Your task to perform on an android device: check android version Image 0: 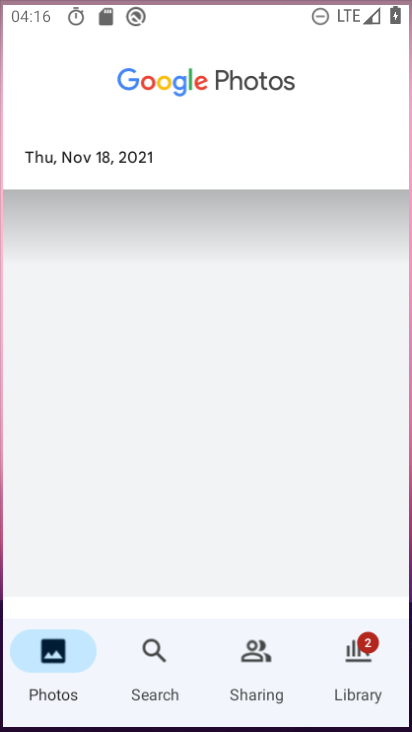
Step 0: drag from (333, 571) to (271, 109)
Your task to perform on an android device: check android version Image 1: 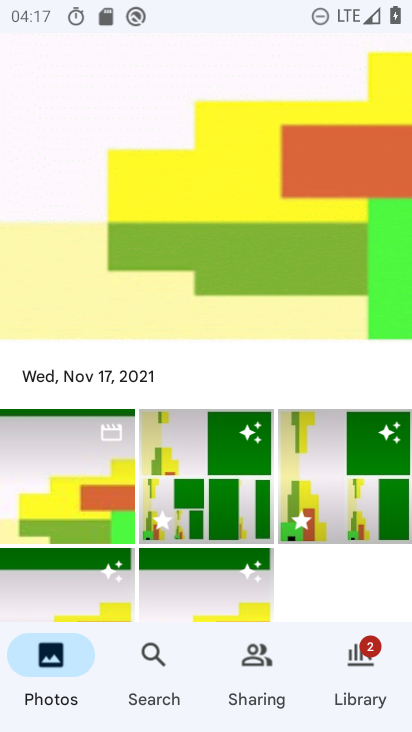
Step 1: press home button
Your task to perform on an android device: check android version Image 2: 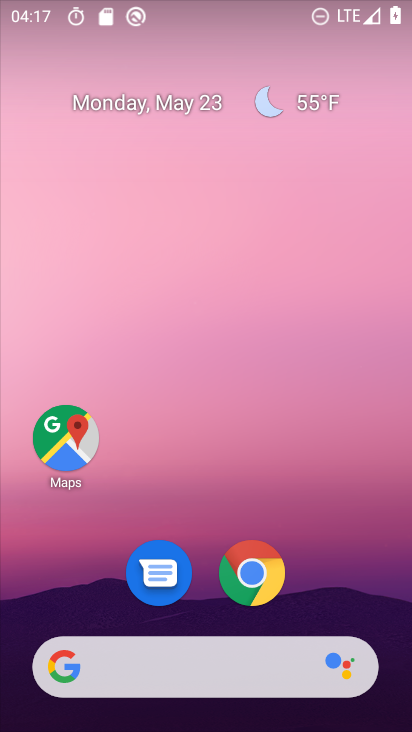
Step 2: drag from (318, 596) to (322, 78)
Your task to perform on an android device: check android version Image 3: 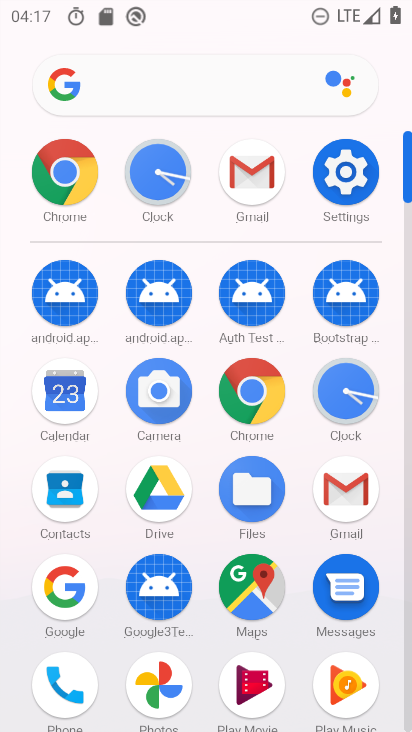
Step 3: click (348, 156)
Your task to perform on an android device: check android version Image 4: 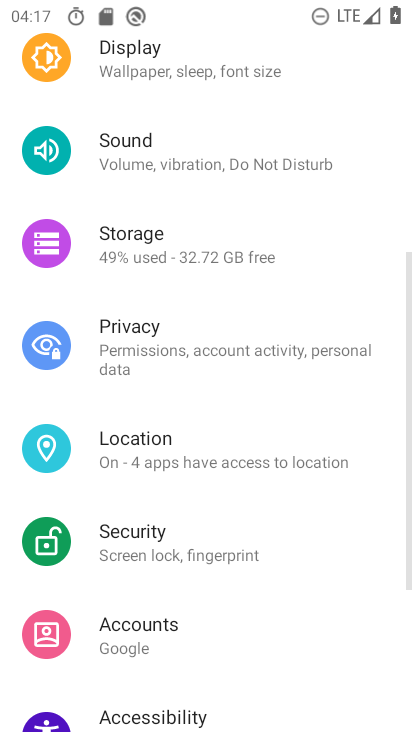
Step 4: drag from (261, 615) to (287, 88)
Your task to perform on an android device: check android version Image 5: 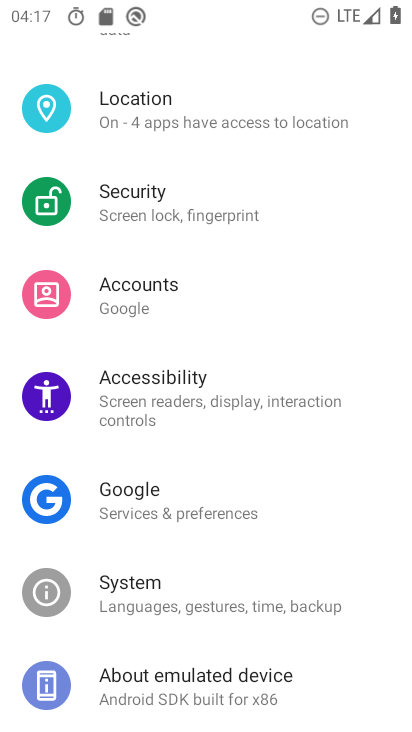
Step 5: click (224, 681)
Your task to perform on an android device: check android version Image 6: 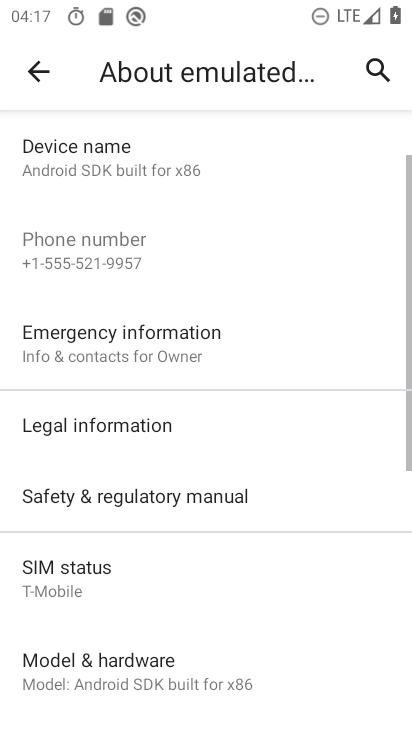
Step 6: drag from (232, 632) to (275, 171)
Your task to perform on an android device: check android version Image 7: 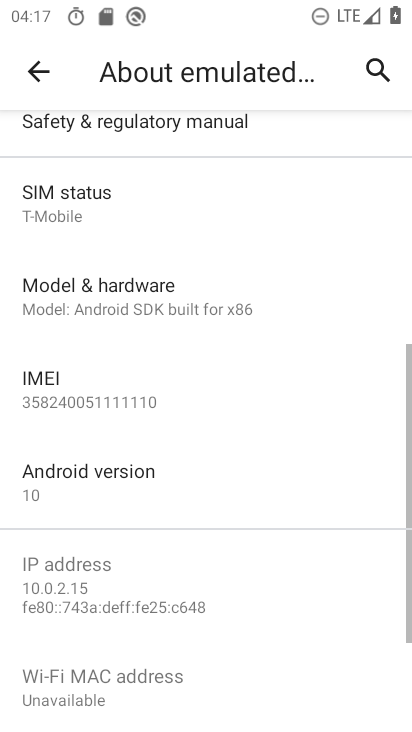
Step 7: click (119, 486)
Your task to perform on an android device: check android version Image 8: 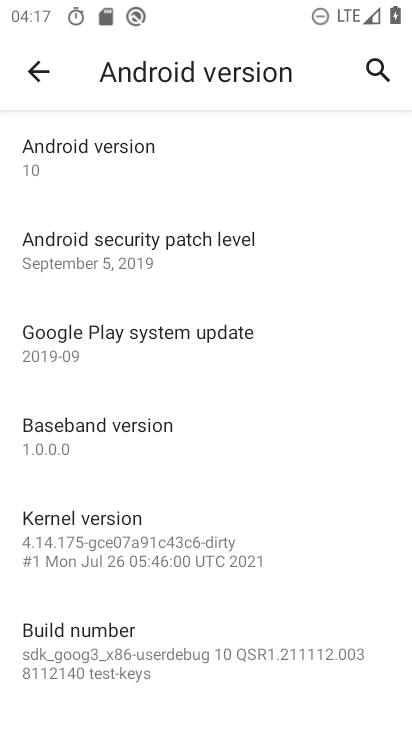
Step 8: task complete